Your task to perform on an android device: Open Google Chrome Image 0: 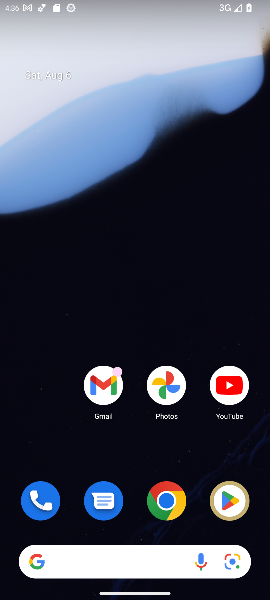
Step 0: click (161, 508)
Your task to perform on an android device: Open Google Chrome Image 1: 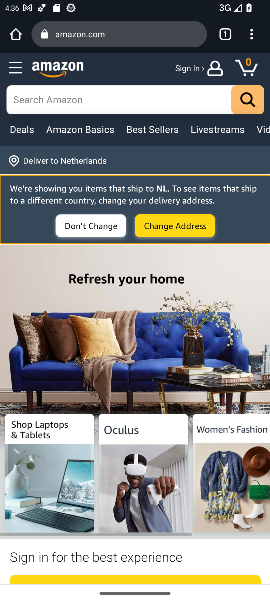
Step 1: task complete